Your task to perform on an android device: turn on bluetooth scan Image 0: 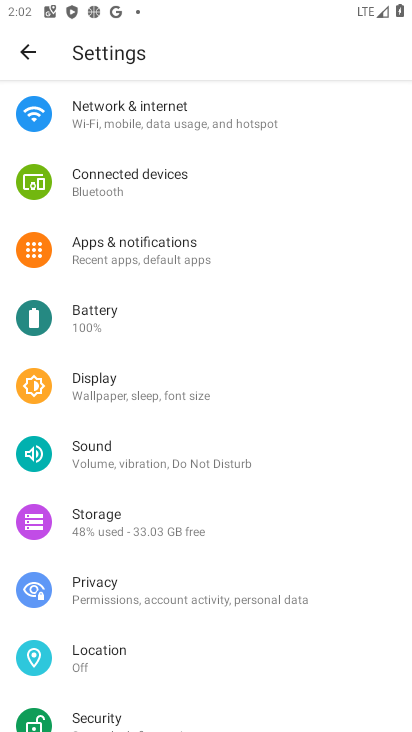
Step 0: press home button
Your task to perform on an android device: turn on bluetooth scan Image 1: 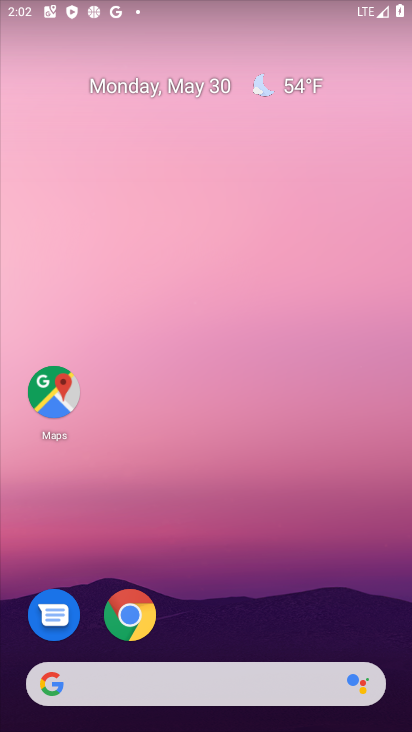
Step 1: drag from (299, 591) to (267, 145)
Your task to perform on an android device: turn on bluetooth scan Image 2: 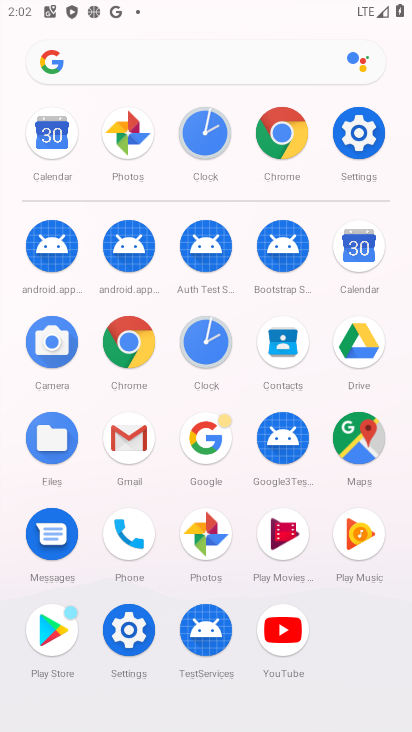
Step 2: click (358, 121)
Your task to perform on an android device: turn on bluetooth scan Image 3: 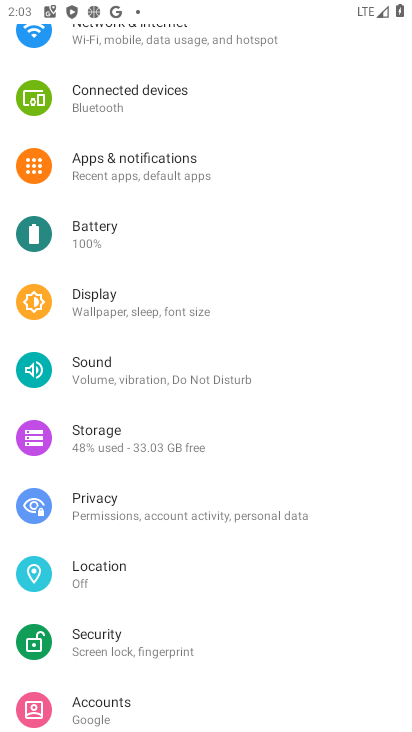
Step 3: click (152, 565)
Your task to perform on an android device: turn on bluetooth scan Image 4: 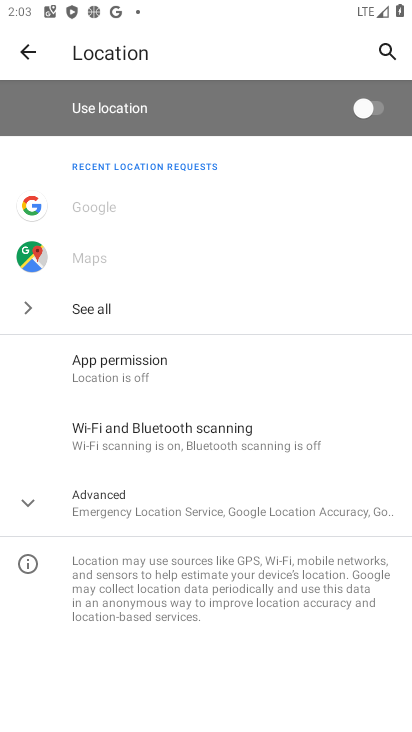
Step 4: click (160, 448)
Your task to perform on an android device: turn on bluetooth scan Image 5: 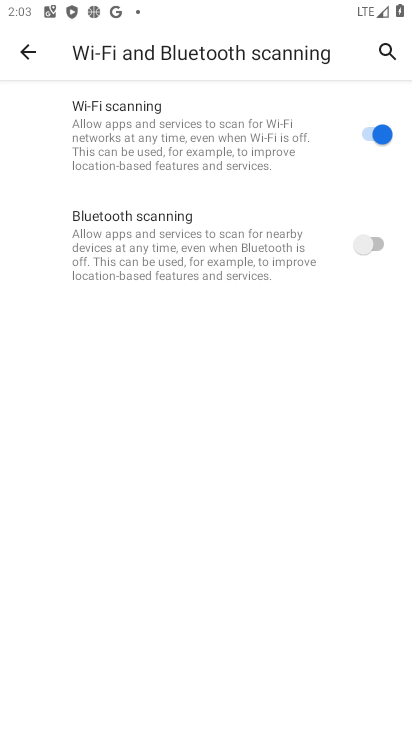
Step 5: click (365, 250)
Your task to perform on an android device: turn on bluetooth scan Image 6: 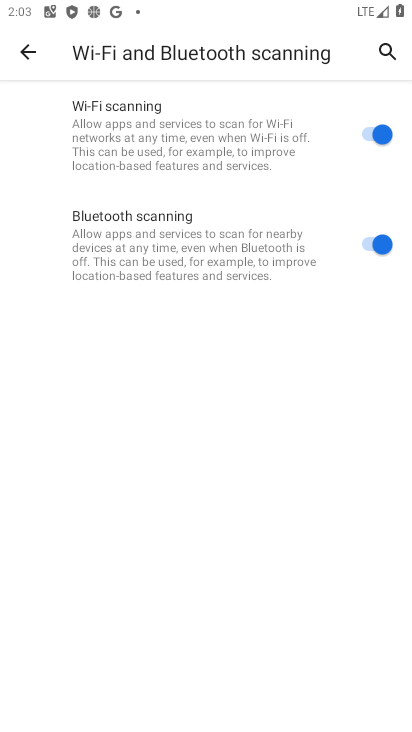
Step 6: task complete